Your task to perform on an android device: turn notification dots off Image 0: 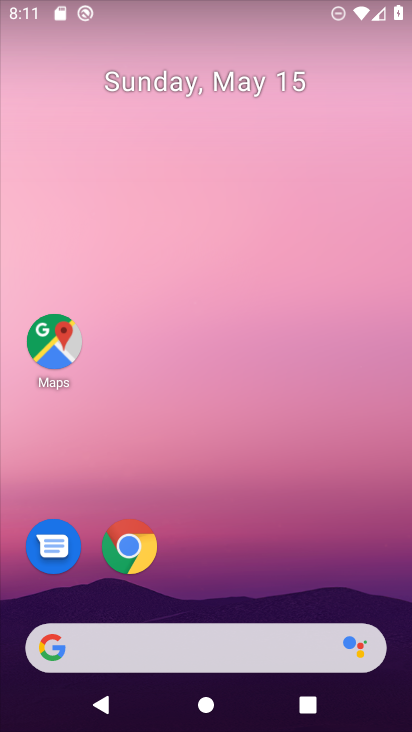
Step 0: drag from (266, 507) to (277, 54)
Your task to perform on an android device: turn notification dots off Image 1: 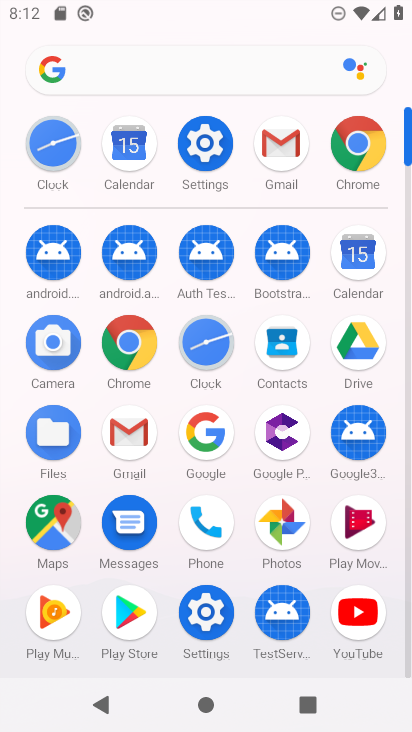
Step 1: click (211, 135)
Your task to perform on an android device: turn notification dots off Image 2: 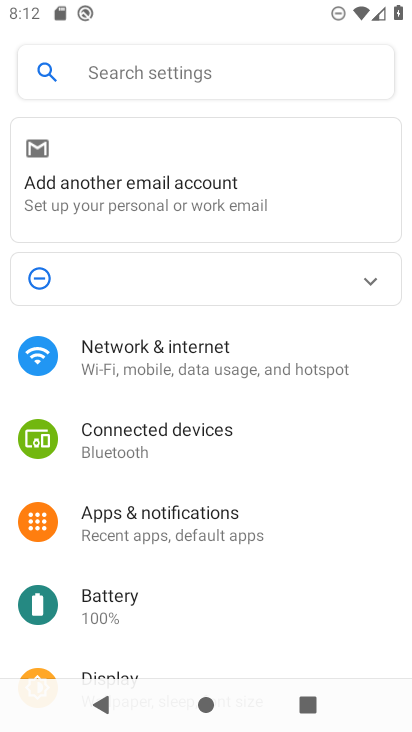
Step 2: click (229, 527)
Your task to perform on an android device: turn notification dots off Image 3: 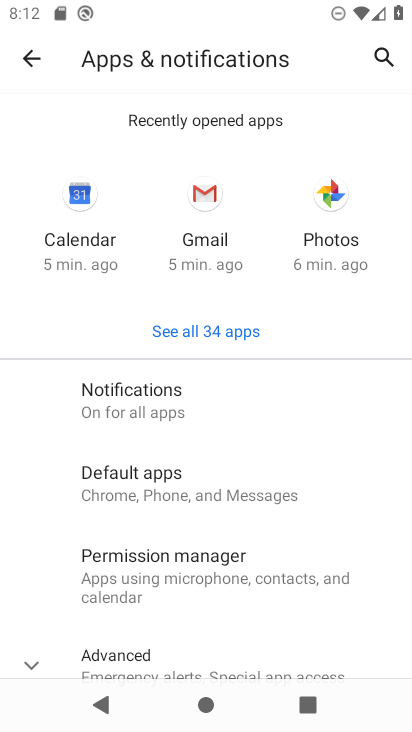
Step 3: click (143, 404)
Your task to perform on an android device: turn notification dots off Image 4: 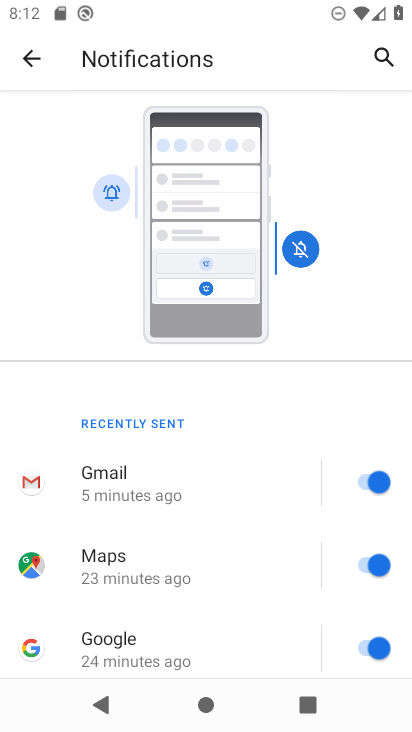
Step 4: drag from (231, 637) to (207, 150)
Your task to perform on an android device: turn notification dots off Image 5: 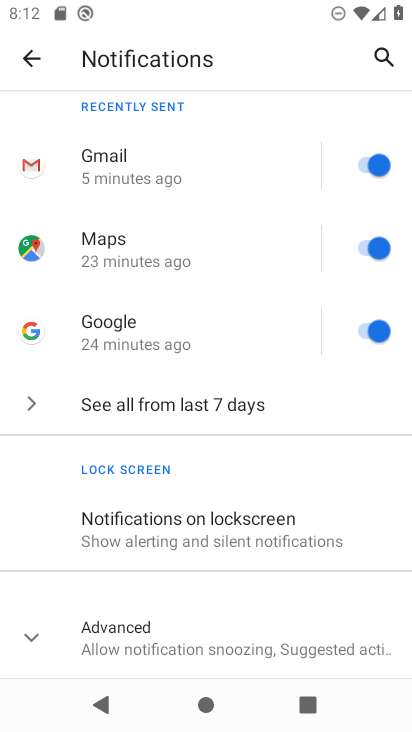
Step 5: click (30, 634)
Your task to perform on an android device: turn notification dots off Image 6: 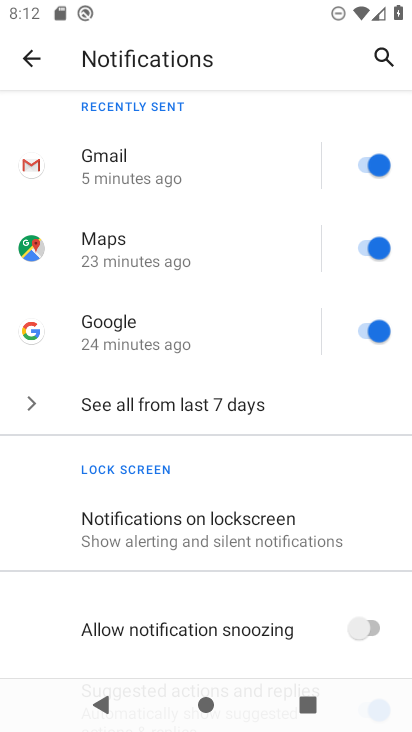
Step 6: drag from (212, 553) to (210, 185)
Your task to perform on an android device: turn notification dots off Image 7: 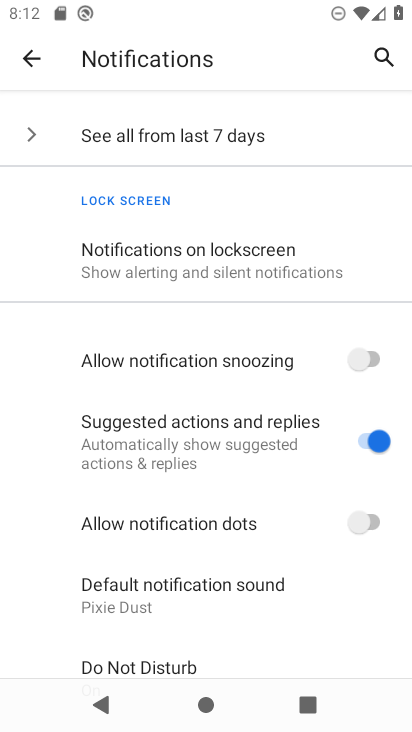
Step 7: click (370, 520)
Your task to perform on an android device: turn notification dots off Image 8: 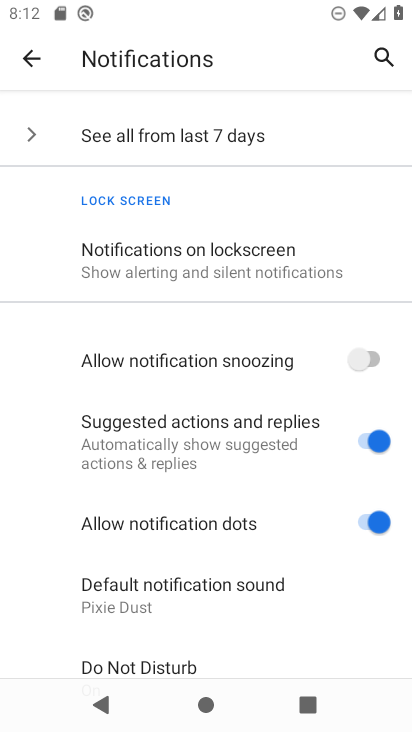
Step 8: task complete